Your task to perform on an android device: change alarm snooze length Image 0: 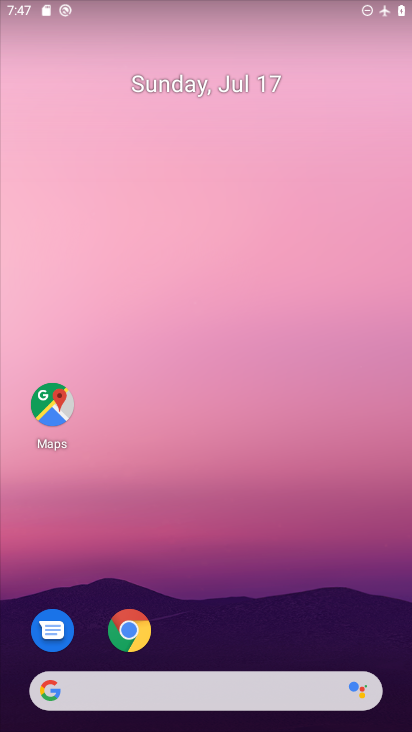
Step 0: drag from (359, 605) to (209, 20)
Your task to perform on an android device: change alarm snooze length Image 1: 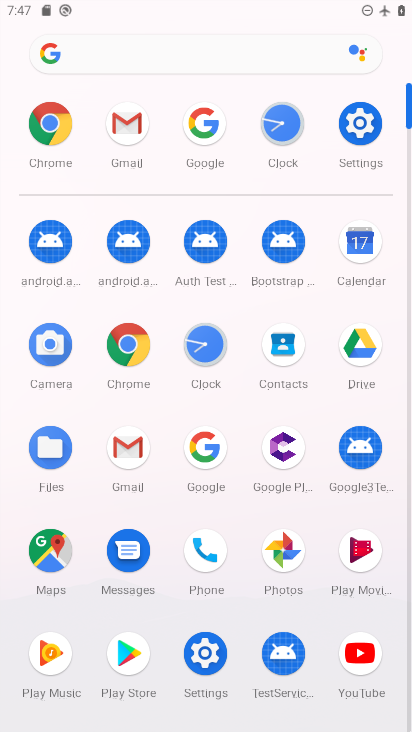
Step 1: click (195, 354)
Your task to perform on an android device: change alarm snooze length Image 2: 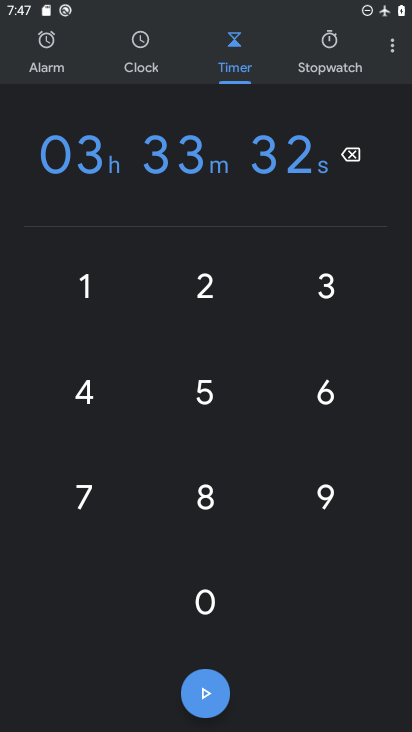
Step 2: click (388, 40)
Your task to perform on an android device: change alarm snooze length Image 3: 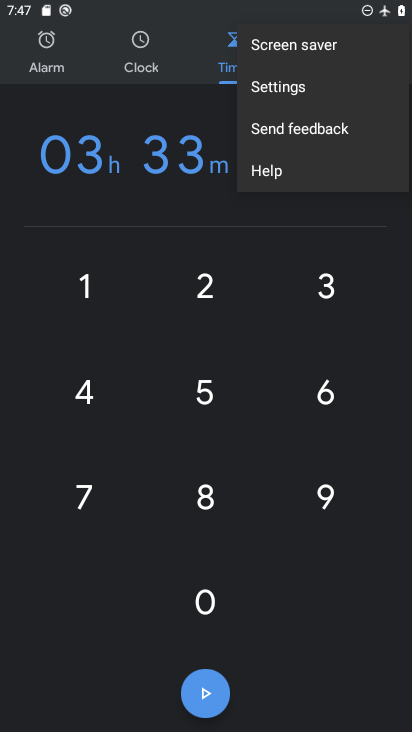
Step 3: click (290, 88)
Your task to perform on an android device: change alarm snooze length Image 4: 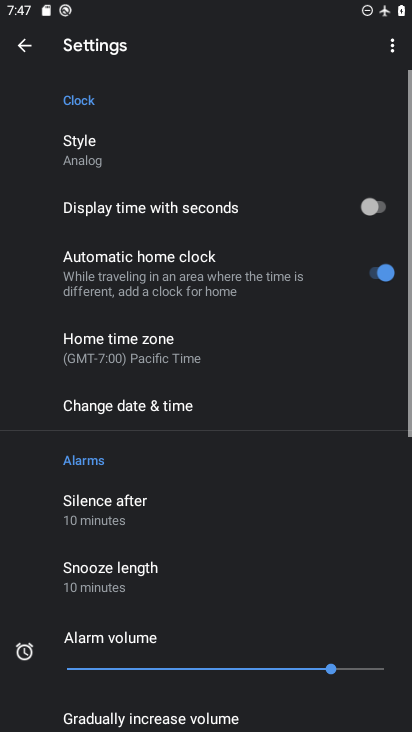
Step 4: click (142, 579)
Your task to perform on an android device: change alarm snooze length Image 5: 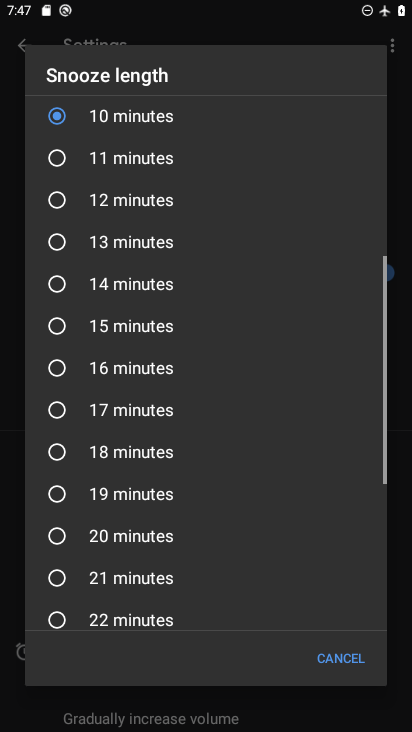
Step 5: click (102, 532)
Your task to perform on an android device: change alarm snooze length Image 6: 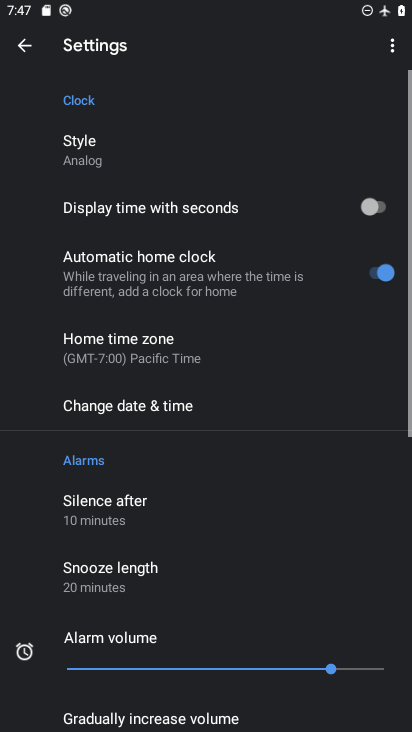
Step 6: task complete